Your task to perform on an android device: turn smart compose on in the gmail app Image 0: 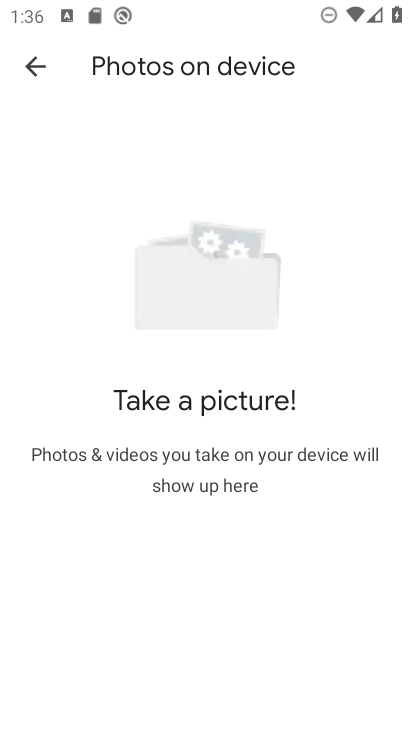
Step 0: drag from (251, 626) to (269, 193)
Your task to perform on an android device: turn smart compose on in the gmail app Image 1: 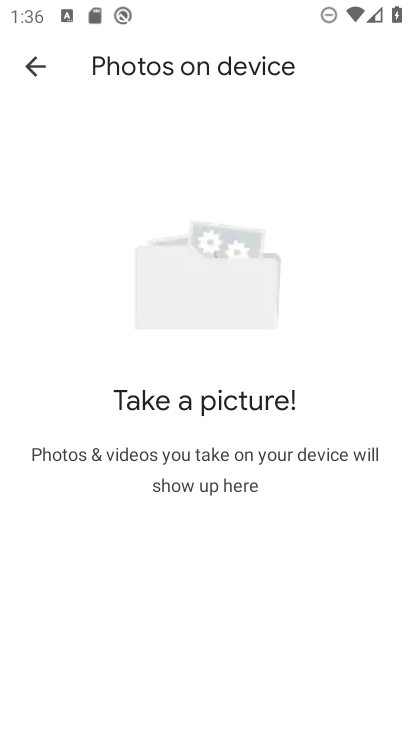
Step 1: press home button
Your task to perform on an android device: turn smart compose on in the gmail app Image 2: 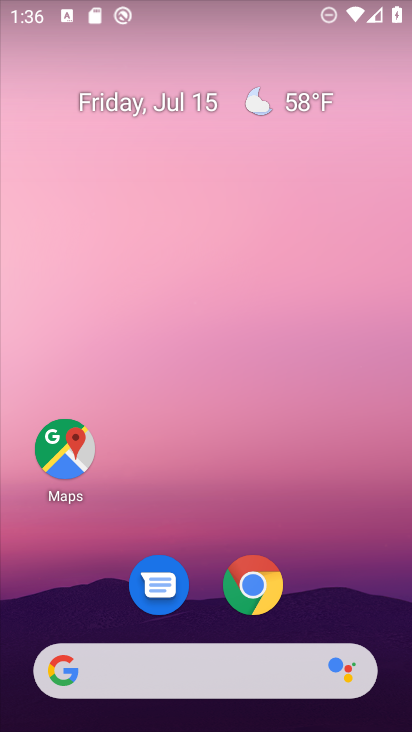
Step 2: drag from (233, 483) to (230, 130)
Your task to perform on an android device: turn smart compose on in the gmail app Image 3: 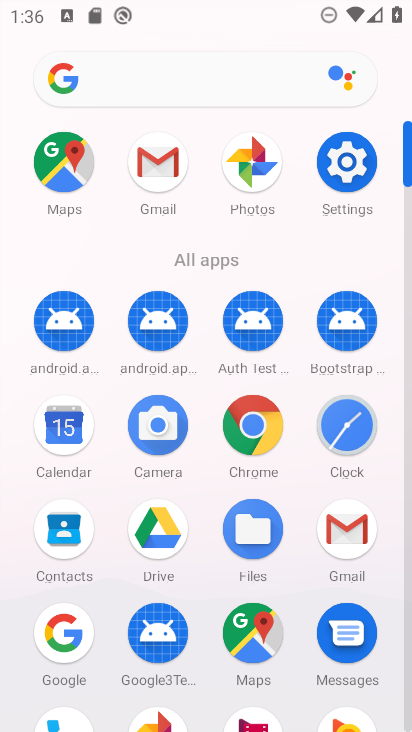
Step 3: click (168, 163)
Your task to perform on an android device: turn smart compose on in the gmail app Image 4: 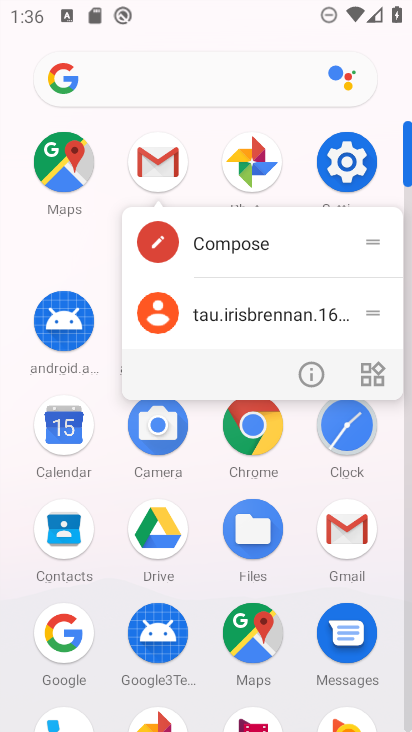
Step 4: click (163, 158)
Your task to perform on an android device: turn smart compose on in the gmail app Image 5: 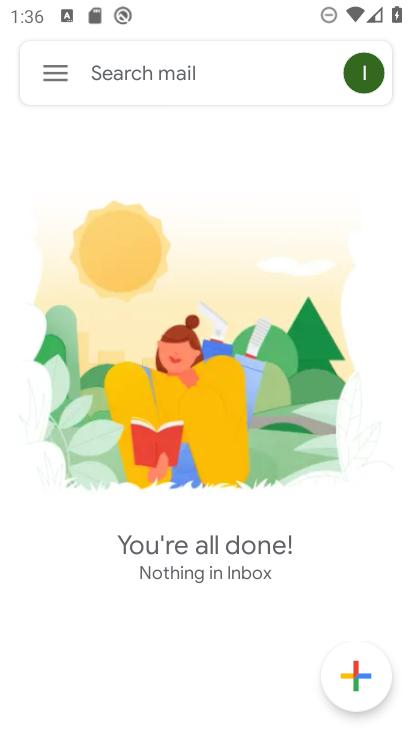
Step 5: drag from (200, 588) to (200, 449)
Your task to perform on an android device: turn smart compose on in the gmail app Image 6: 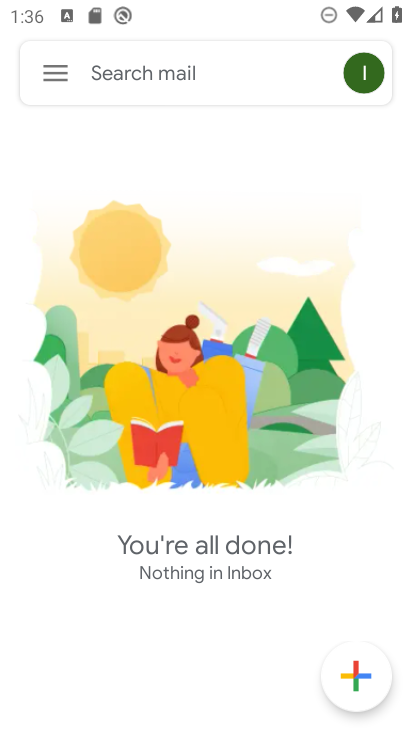
Step 6: click (57, 74)
Your task to perform on an android device: turn smart compose on in the gmail app Image 7: 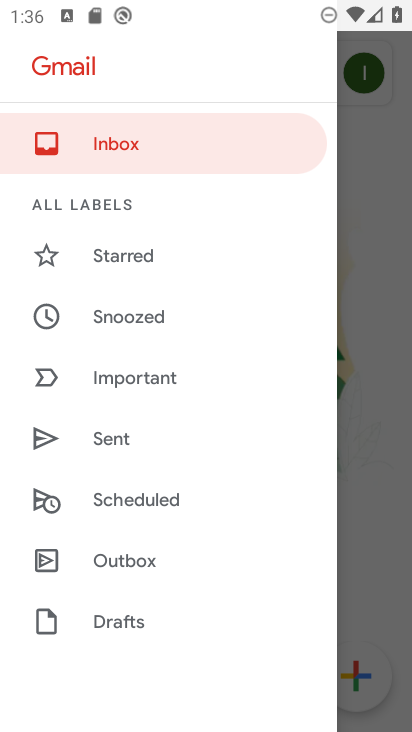
Step 7: drag from (138, 431) to (166, 150)
Your task to perform on an android device: turn smart compose on in the gmail app Image 8: 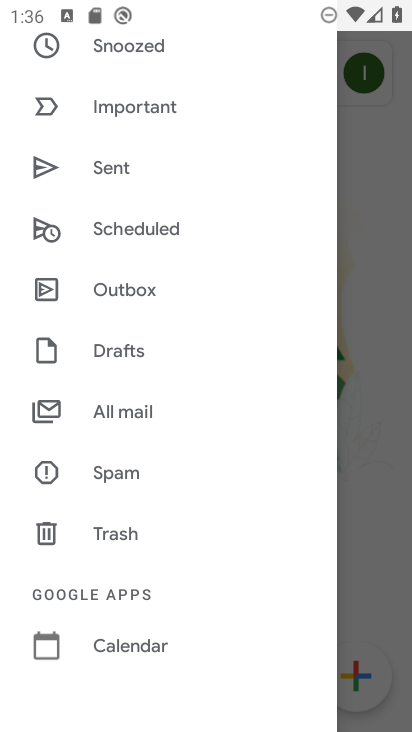
Step 8: drag from (131, 496) to (178, 140)
Your task to perform on an android device: turn smart compose on in the gmail app Image 9: 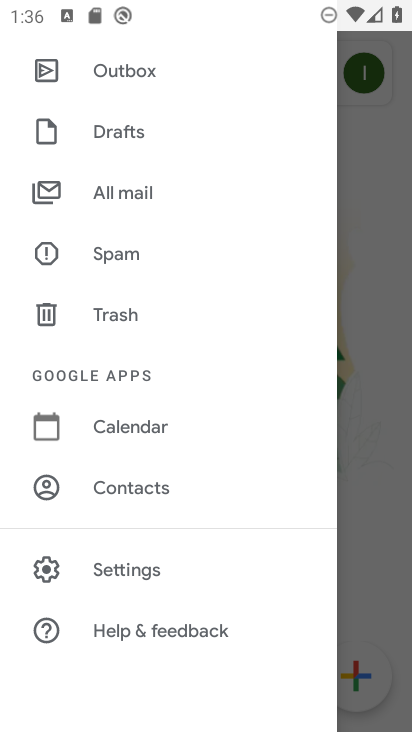
Step 9: click (146, 565)
Your task to perform on an android device: turn smart compose on in the gmail app Image 10: 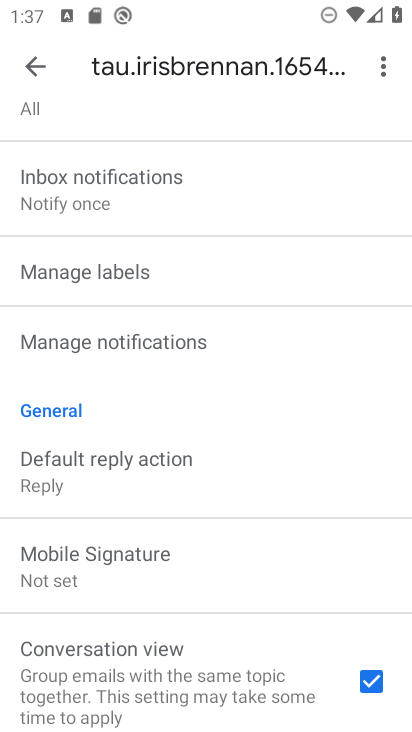
Step 10: task complete